Your task to perform on an android device: add a label to a message in the gmail app Image 0: 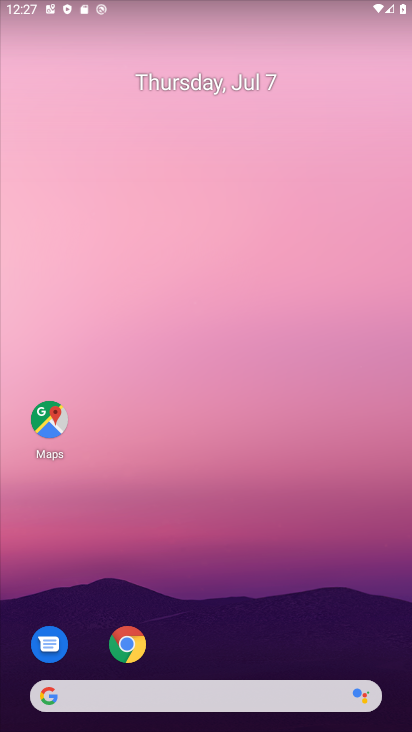
Step 0: drag from (222, 648) to (252, 149)
Your task to perform on an android device: add a label to a message in the gmail app Image 1: 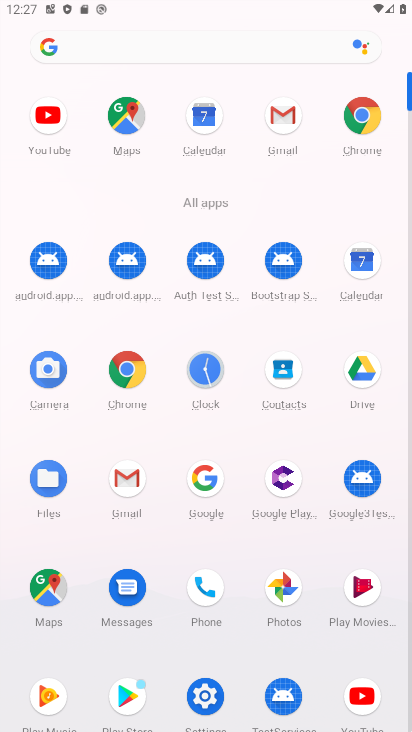
Step 1: click (283, 114)
Your task to perform on an android device: add a label to a message in the gmail app Image 2: 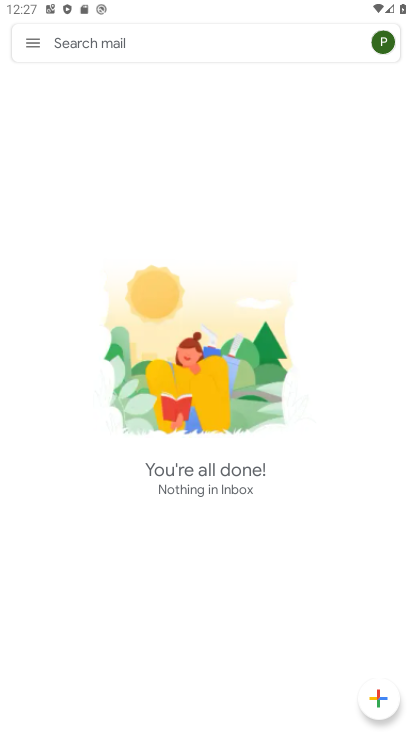
Step 2: task complete